Your task to perform on an android device: Open the map Image 0: 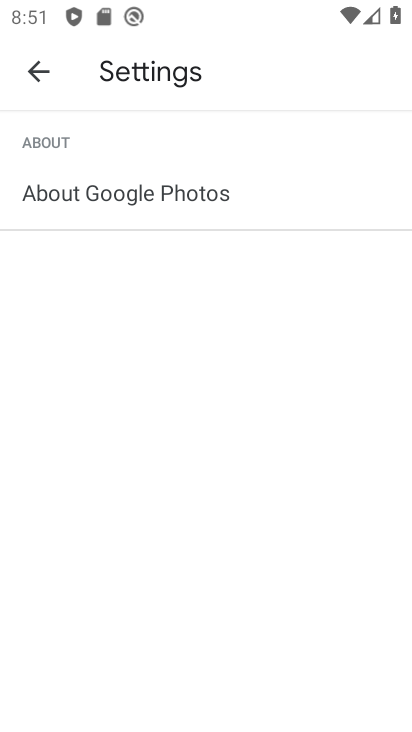
Step 0: press home button
Your task to perform on an android device: Open the map Image 1: 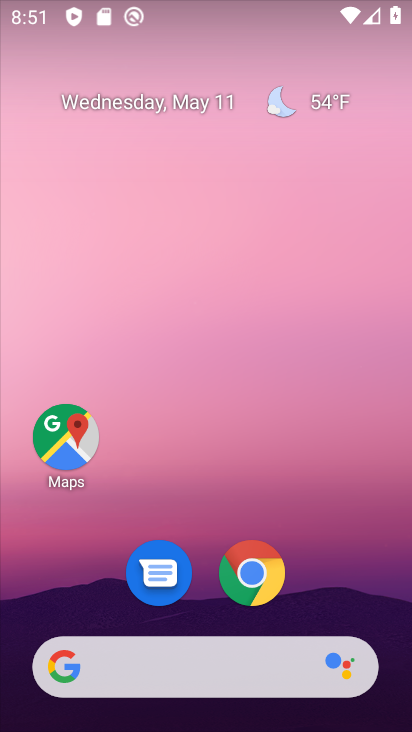
Step 1: drag from (324, 681) to (402, 666)
Your task to perform on an android device: Open the map Image 2: 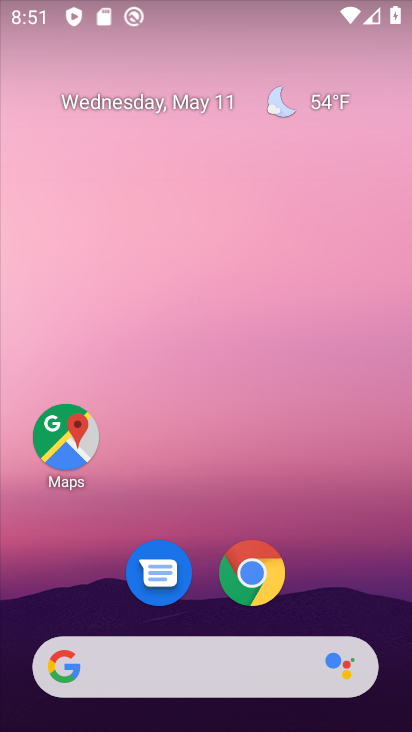
Step 2: click (248, 642)
Your task to perform on an android device: Open the map Image 3: 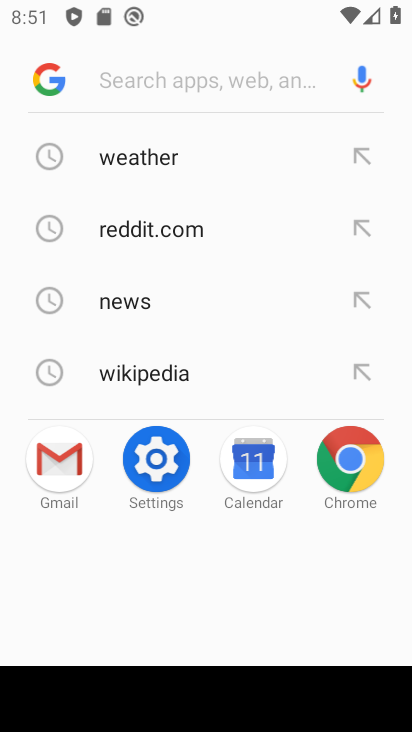
Step 3: press back button
Your task to perform on an android device: Open the map Image 4: 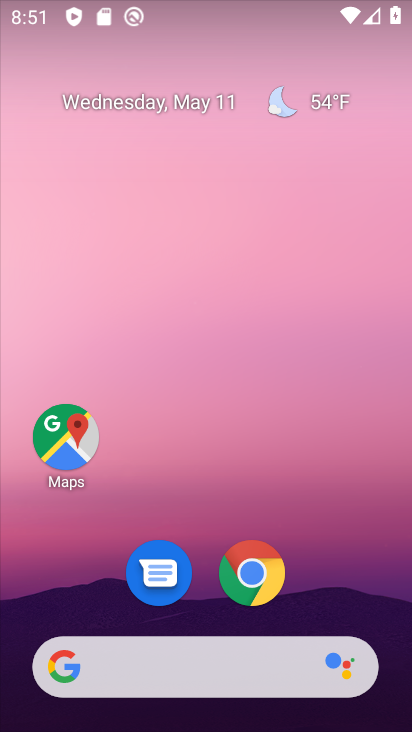
Step 4: drag from (285, 575) to (347, 6)
Your task to perform on an android device: Open the map Image 5: 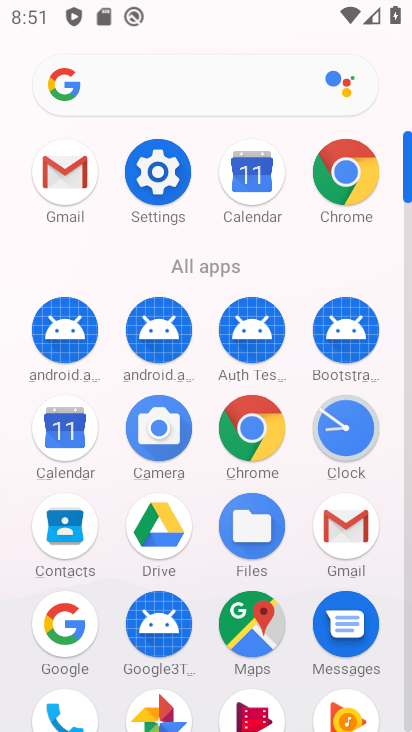
Step 5: click (258, 633)
Your task to perform on an android device: Open the map Image 6: 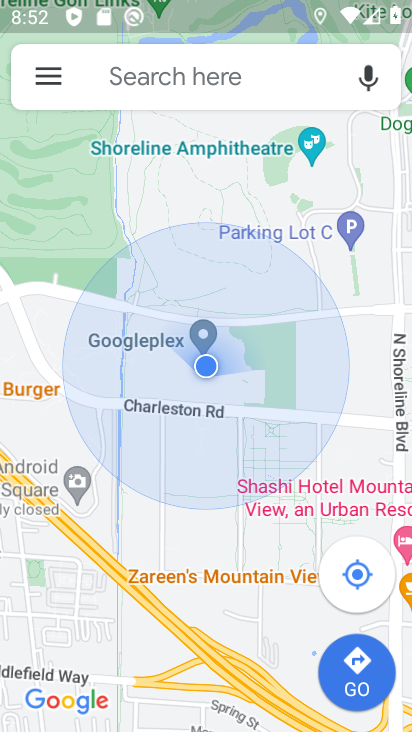
Step 6: task complete